Your task to perform on an android device: install app "Calculator" Image 0: 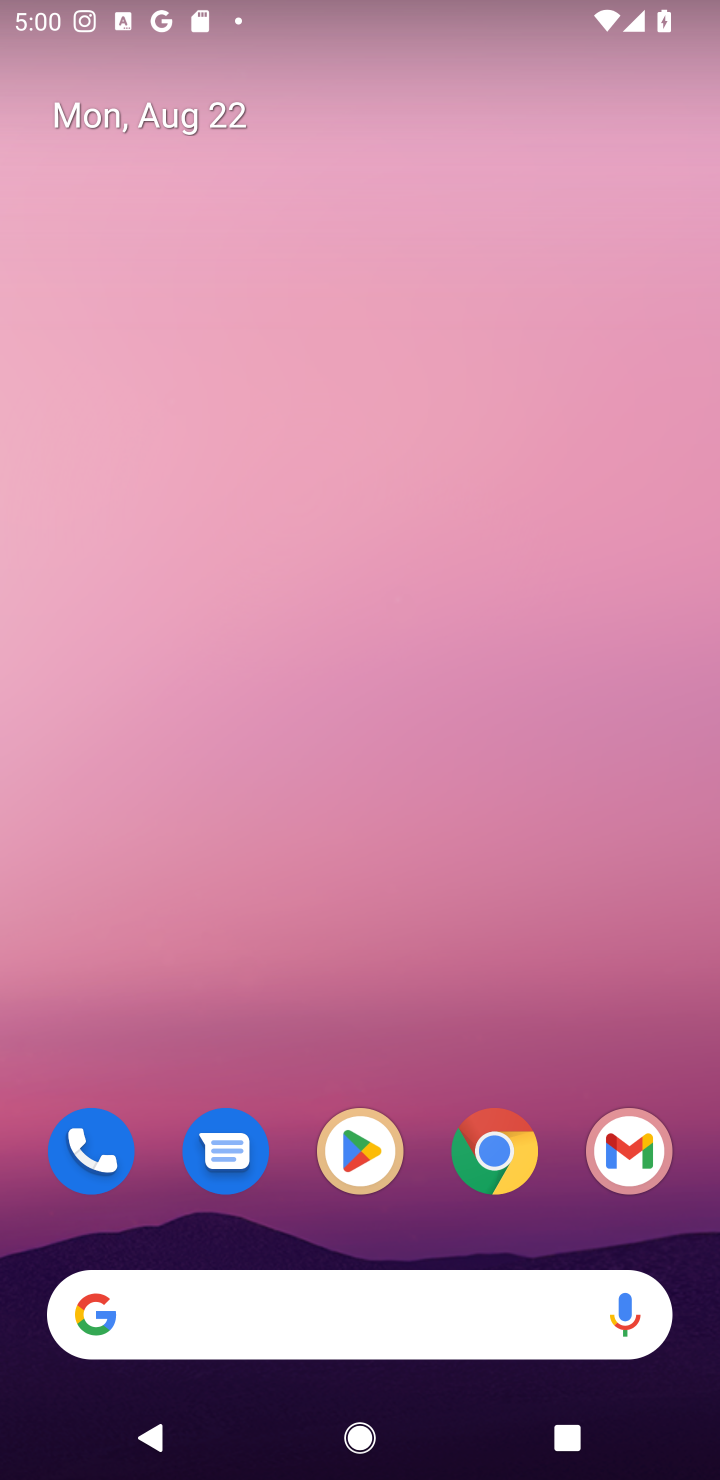
Step 0: press home button
Your task to perform on an android device: install app "Calculator" Image 1: 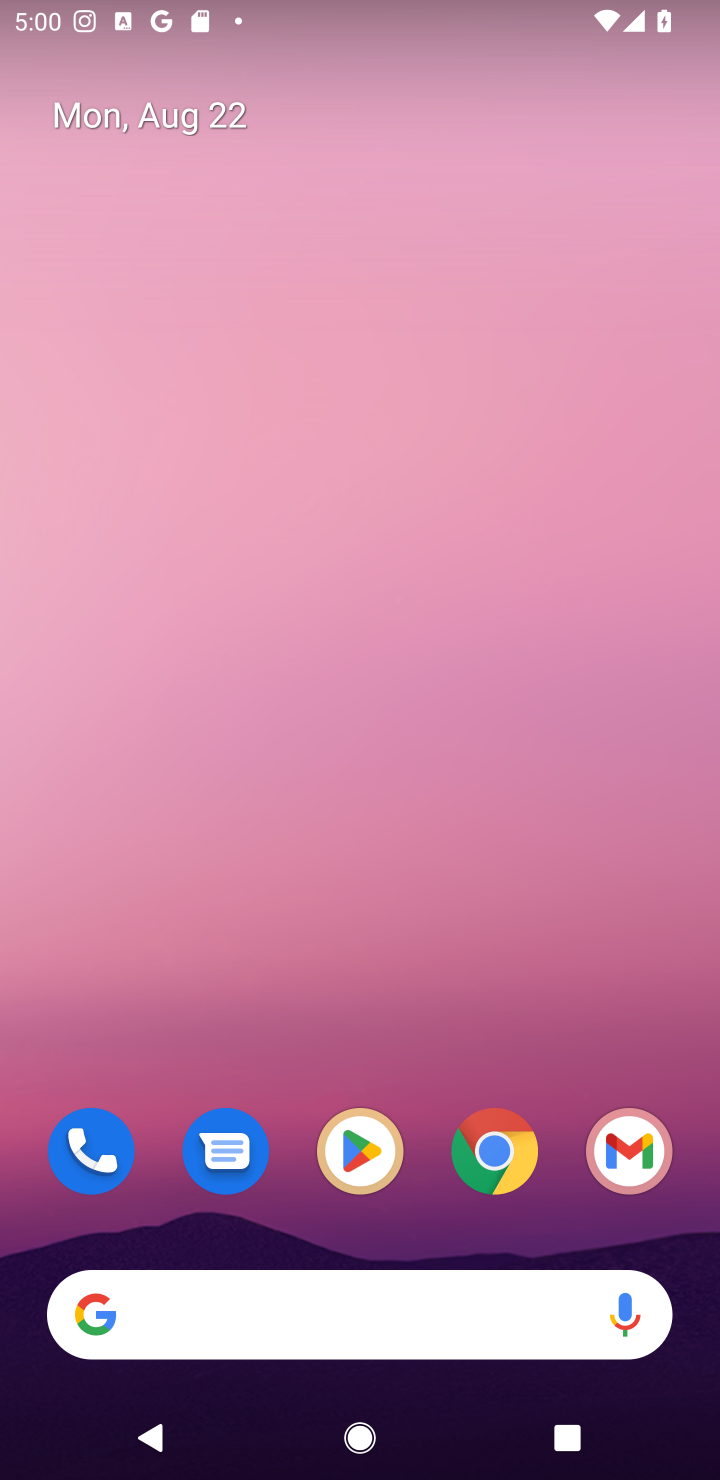
Step 1: click (362, 1154)
Your task to perform on an android device: install app "Calculator" Image 2: 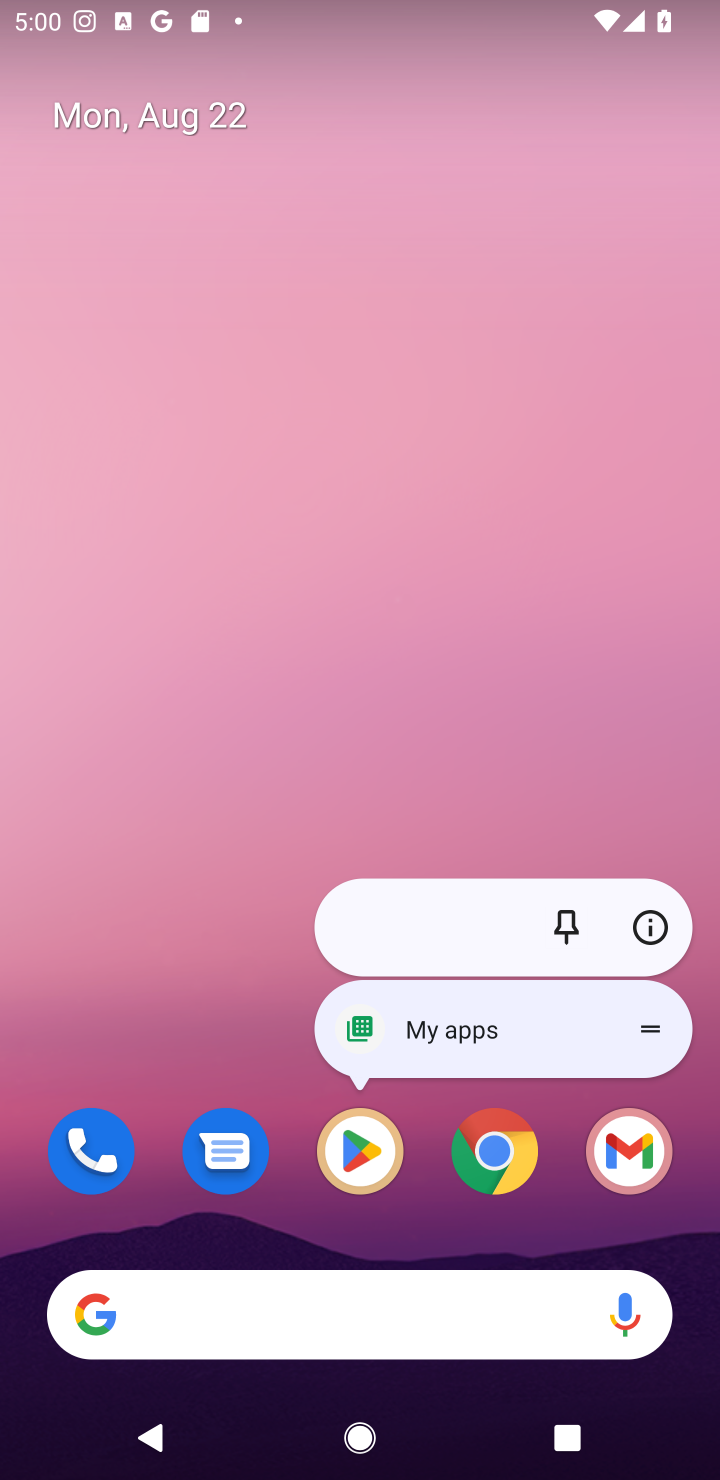
Step 2: click (354, 1152)
Your task to perform on an android device: install app "Calculator" Image 3: 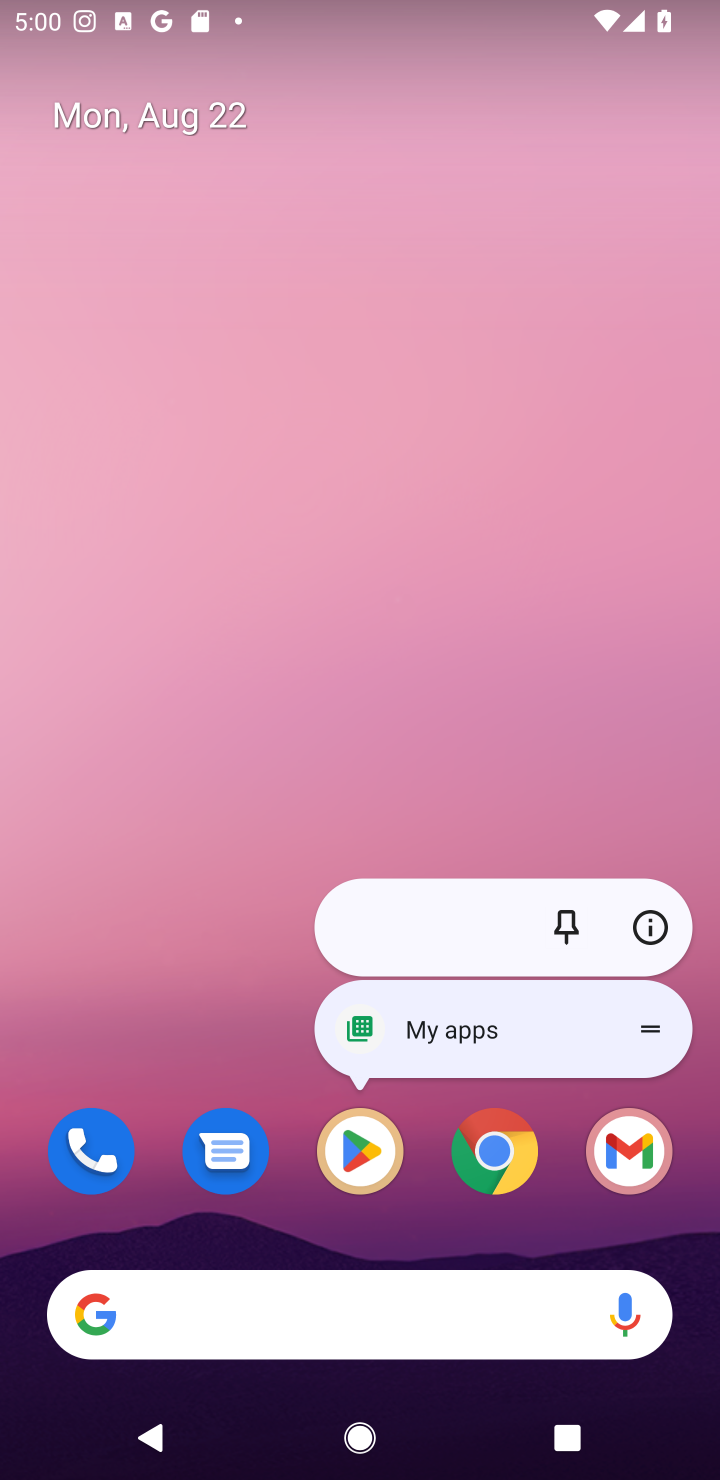
Step 3: click (350, 1159)
Your task to perform on an android device: install app "Calculator" Image 4: 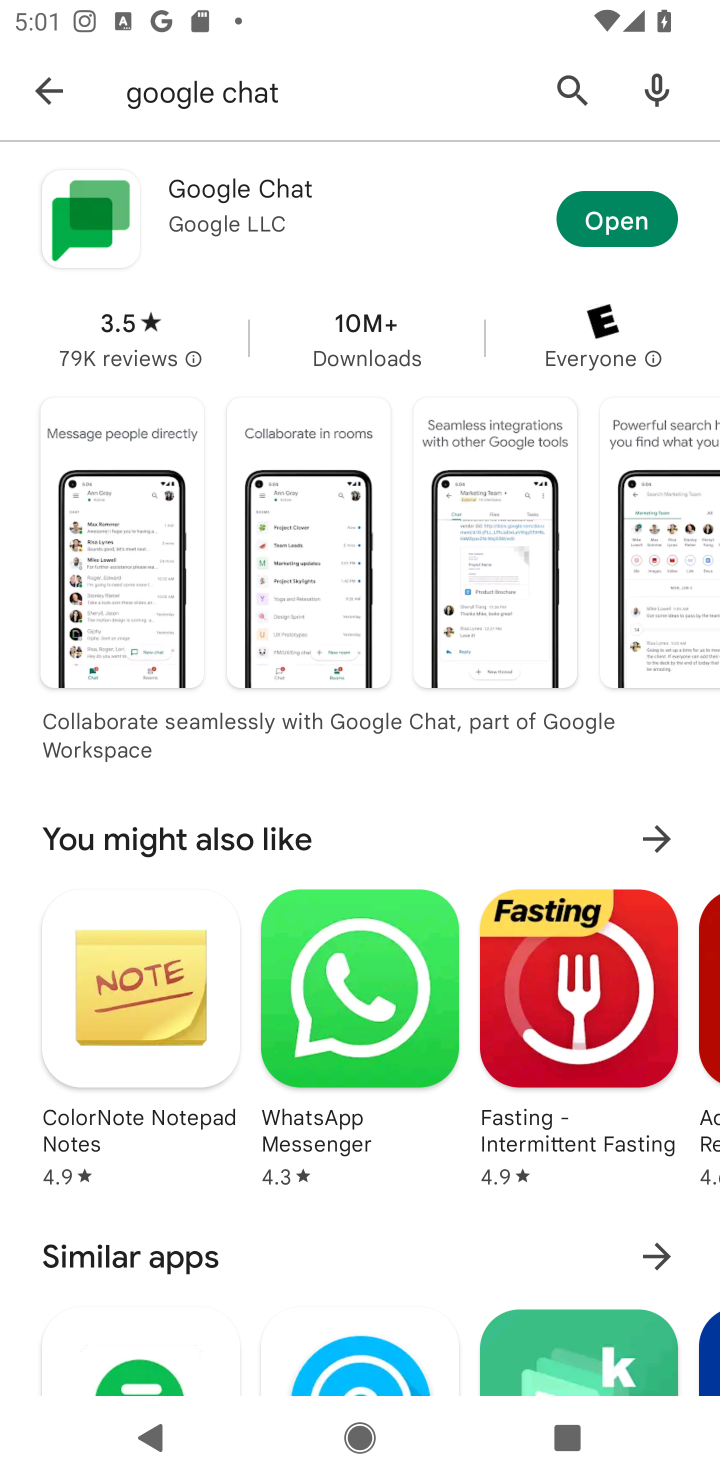
Step 4: click (566, 73)
Your task to perform on an android device: install app "Calculator" Image 5: 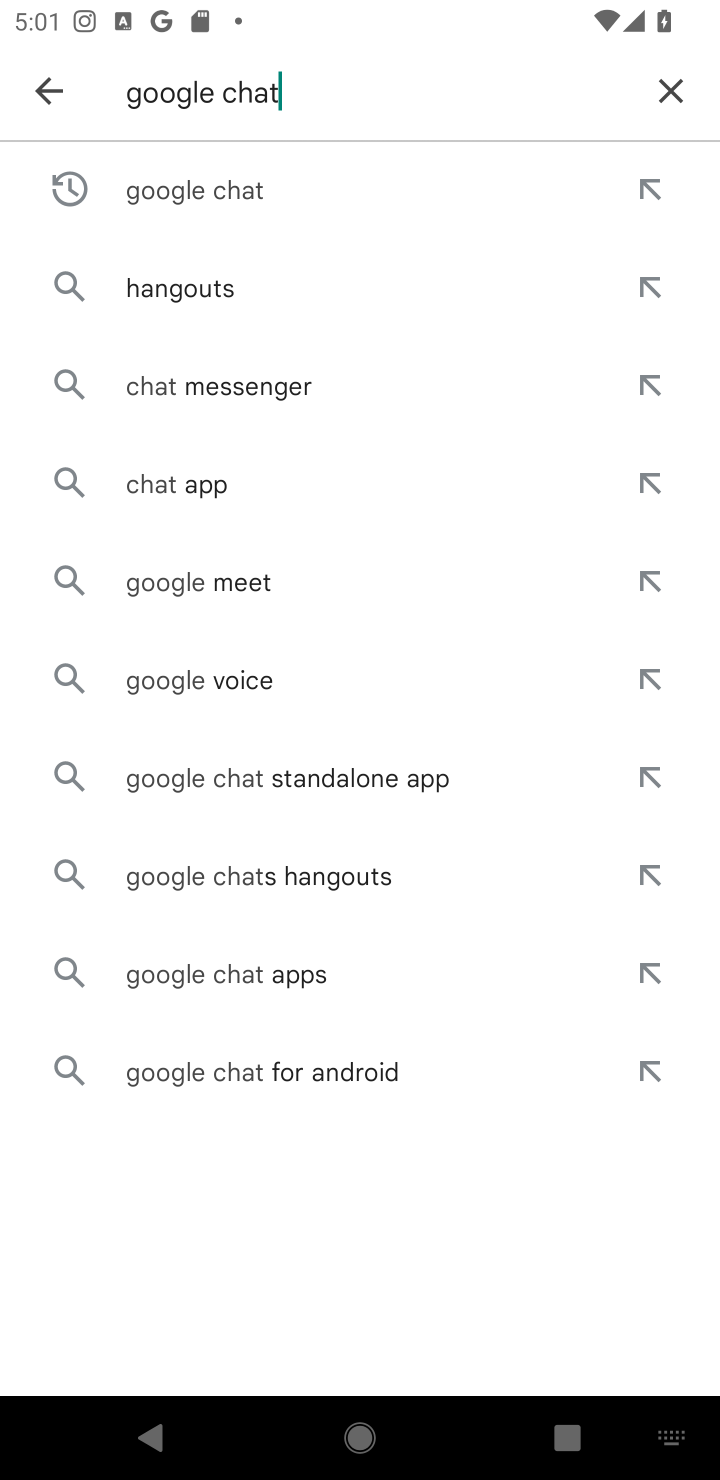
Step 5: click (657, 77)
Your task to perform on an android device: install app "Calculator" Image 6: 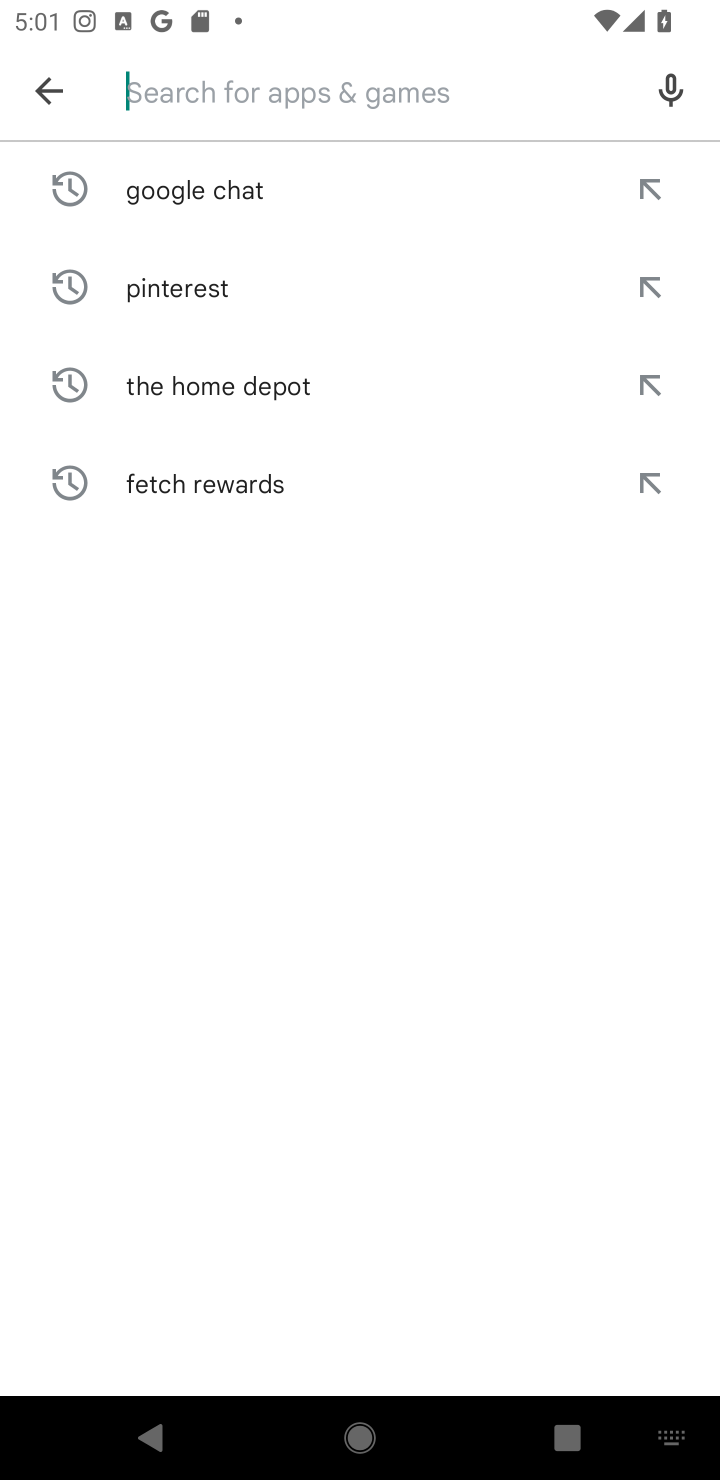
Step 6: type "Calculator"
Your task to perform on an android device: install app "Calculator" Image 7: 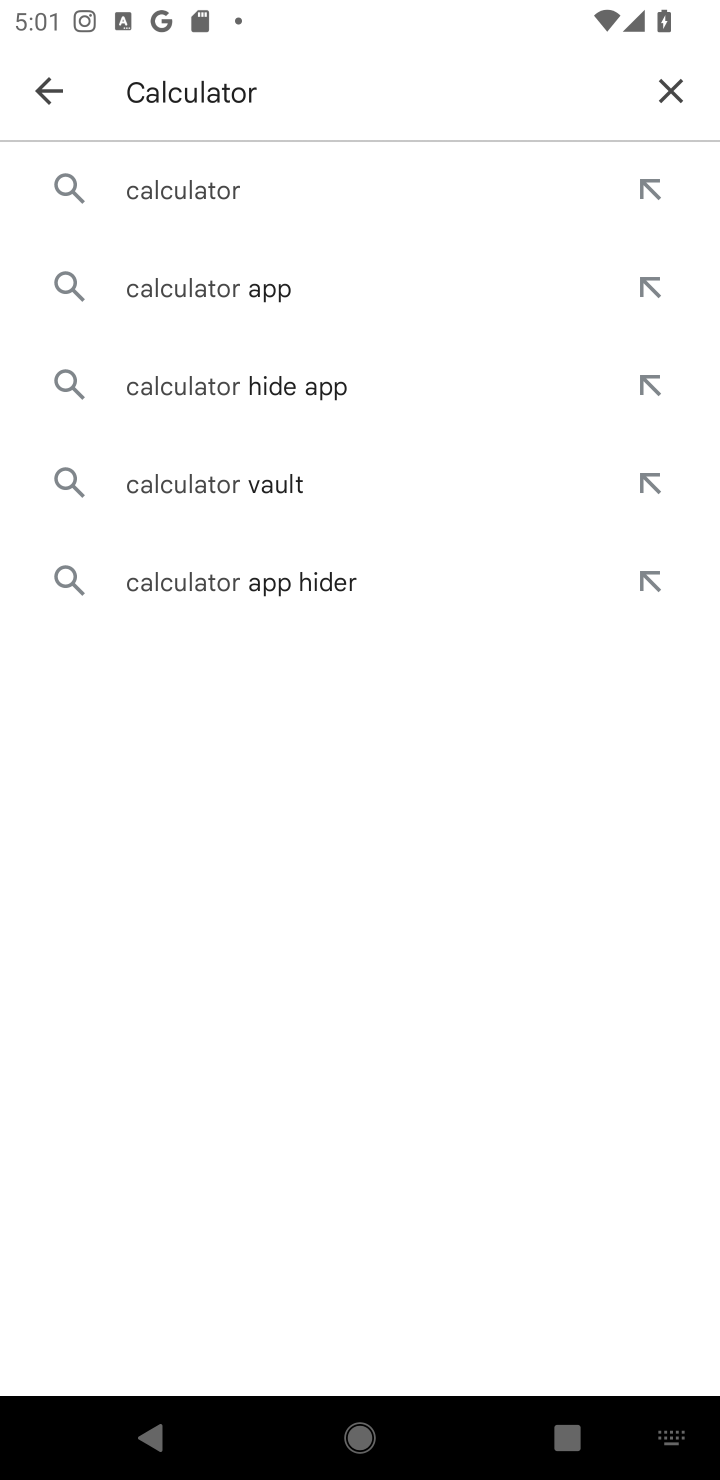
Step 7: click (168, 198)
Your task to perform on an android device: install app "Calculator" Image 8: 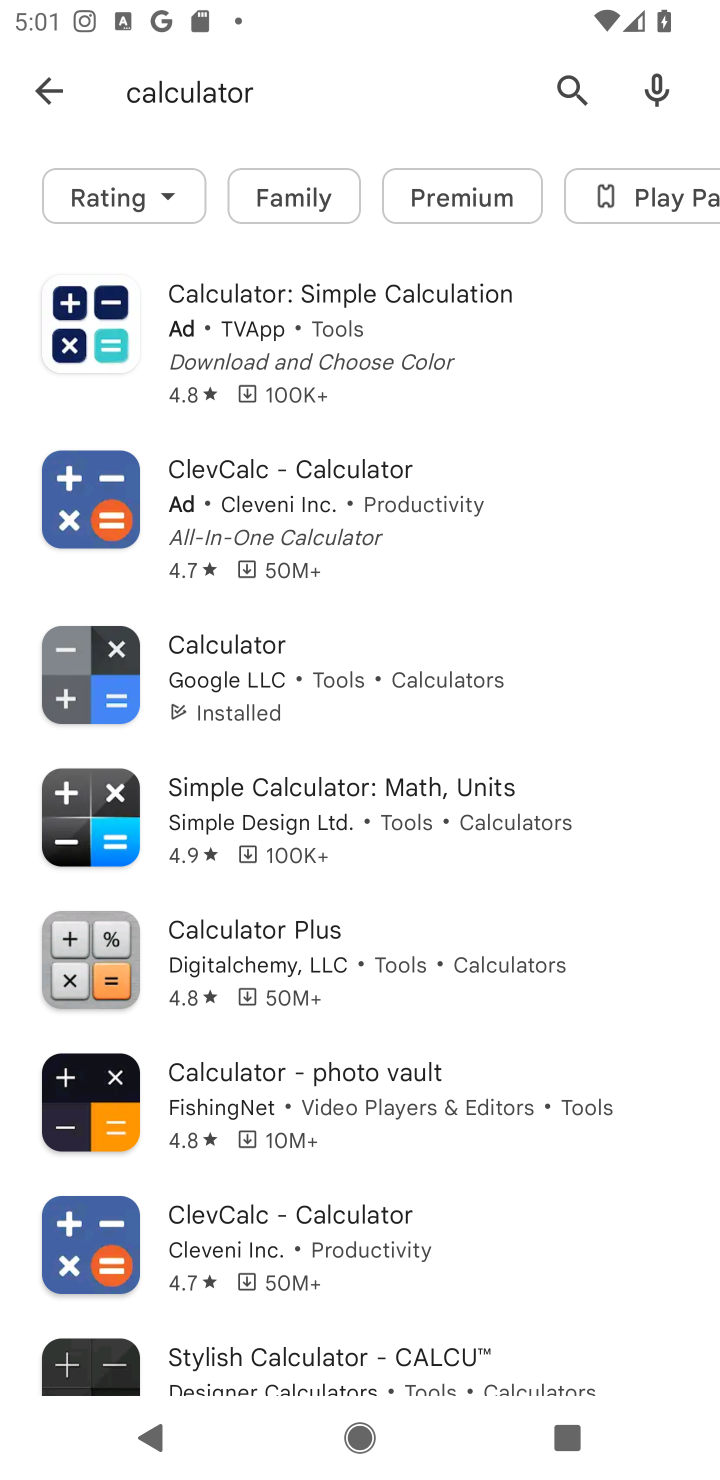
Step 8: click (286, 672)
Your task to perform on an android device: install app "Calculator" Image 9: 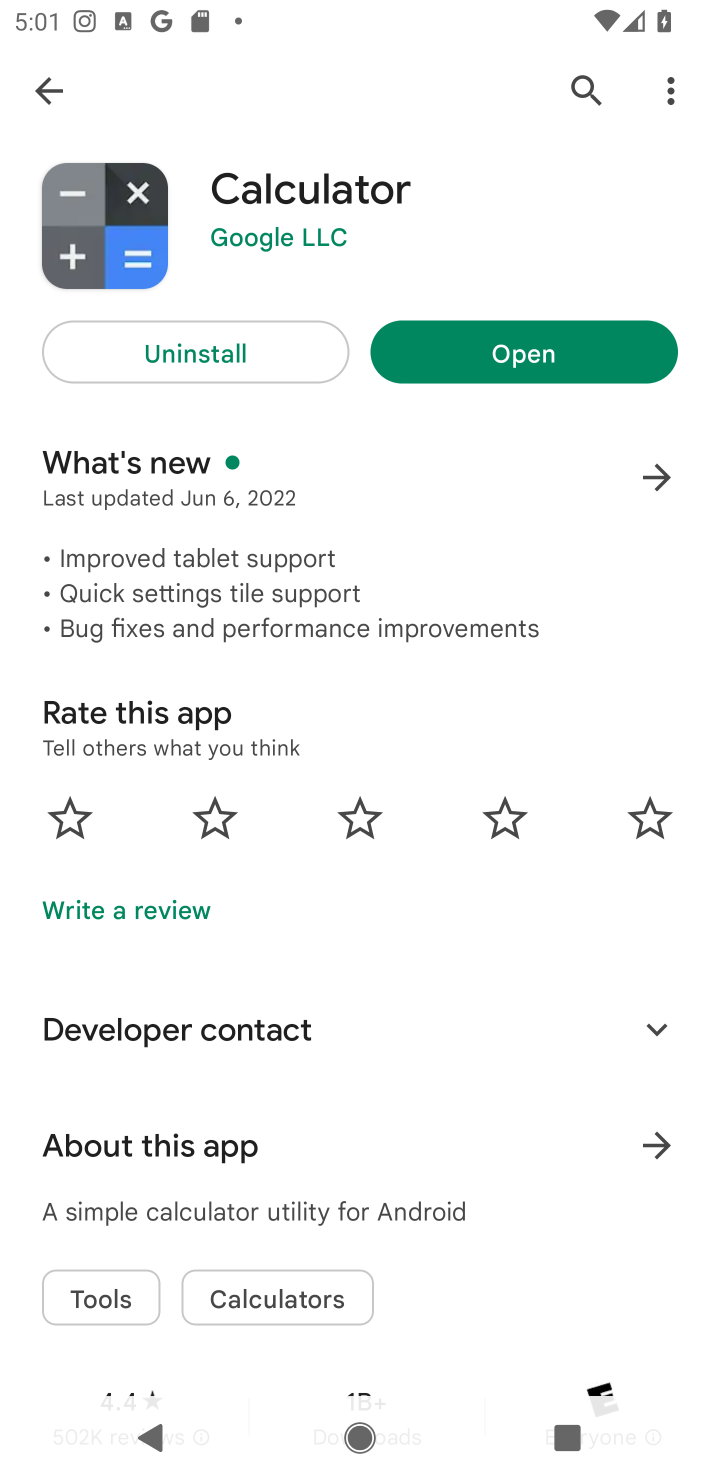
Step 9: task complete